Your task to perform on an android device: turn on javascript in the chrome app Image 0: 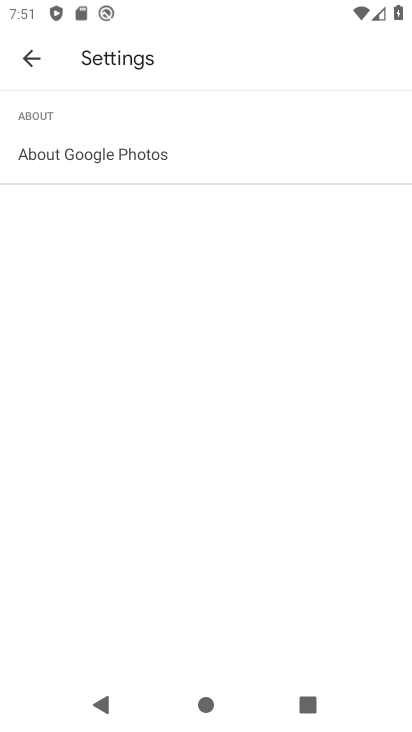
Step 0: press home button
Your task to perform on an android device: turn on javascript in the chrome app Image 1: 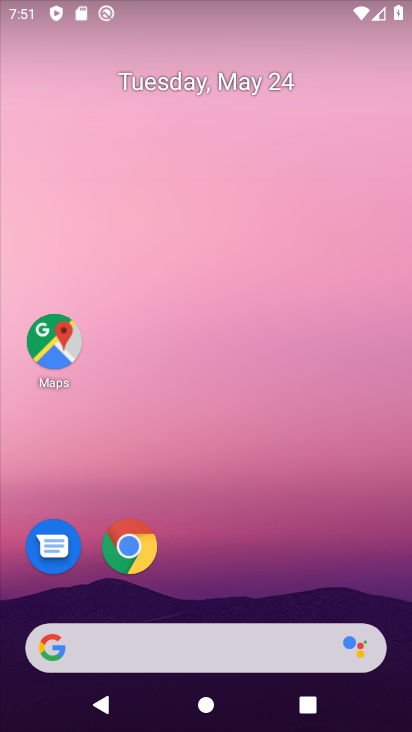
Step 1: click (137, 547)
Your task to perform on an android device: turn on javascript in the chrome app Image 2: 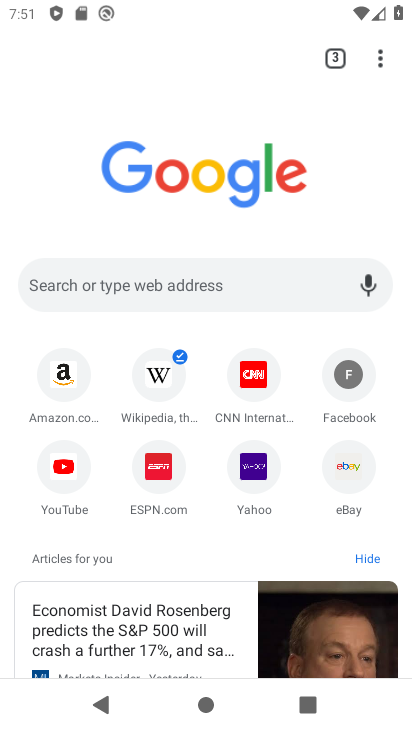
Step 2: click (378, 53)
Your task to perform on an android device: turn on javascript in the chrome app Image 3: 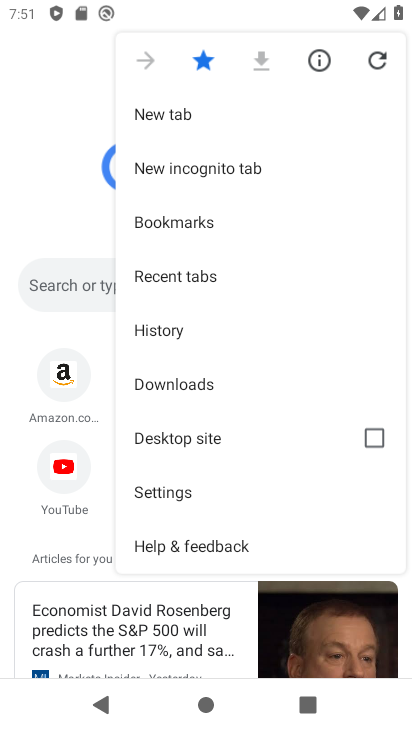
Step 3: click (192, 487)
Your task to perform on an android device: turn on javascript in the chrome app Image 4: 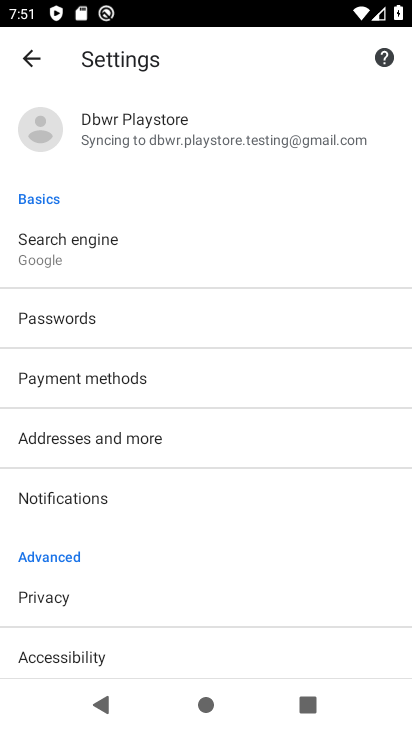
Step 4: drag from (199, 505) to (188, 235)
Your task to perform on an android device: turn on javascript in the chrome app Image 5: 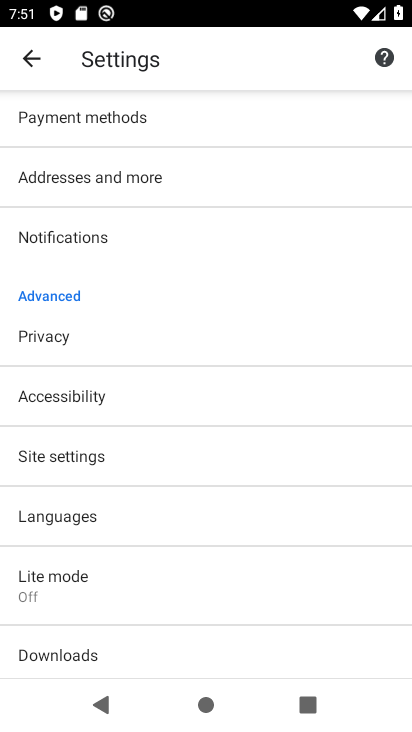
Step 5: click (181, 456)
Your task to perform on an android device: turn on javascript in the chrome app Image 6: 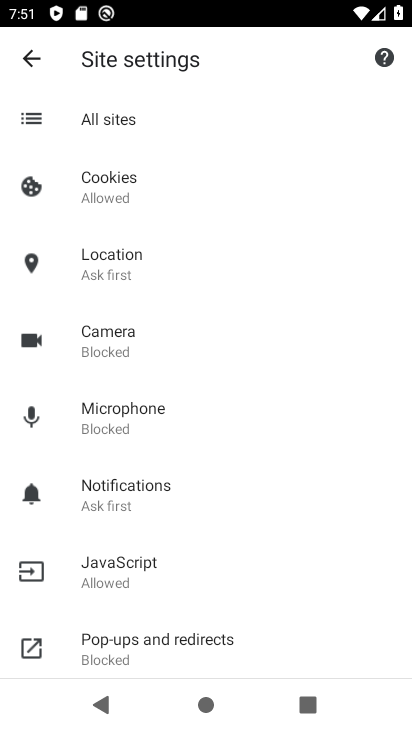
Step 6: click (183, 583)
Your task to perform on an android device: turn on javascript in the chrome app Image 7: 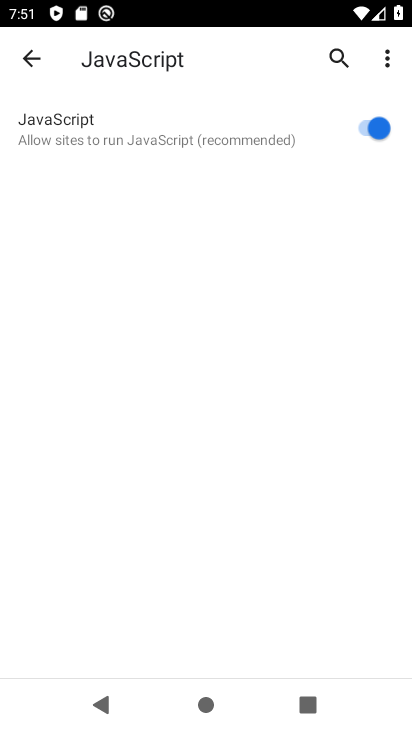
Step 7: task complete